Your task to perform on an android device: Open Chrome and go to settings Image 0: 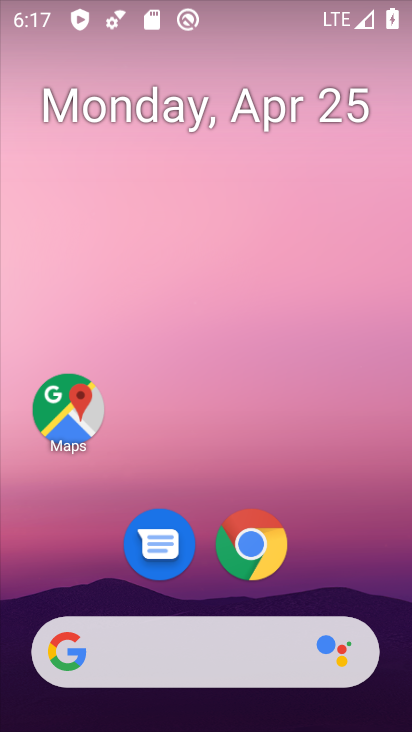
Step 0: click (226, 516)
Your task to perform on an android device: Open Chrome and go to settings Image 1: 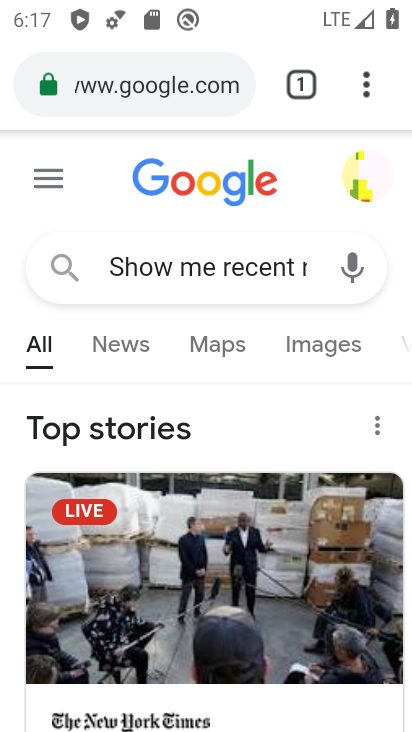
Step 1: task complete